Your task to perform on an android device: Search for usb-c to usb-a on walmart, select the first entry, add it to the cart, then select checkout. Image 0: 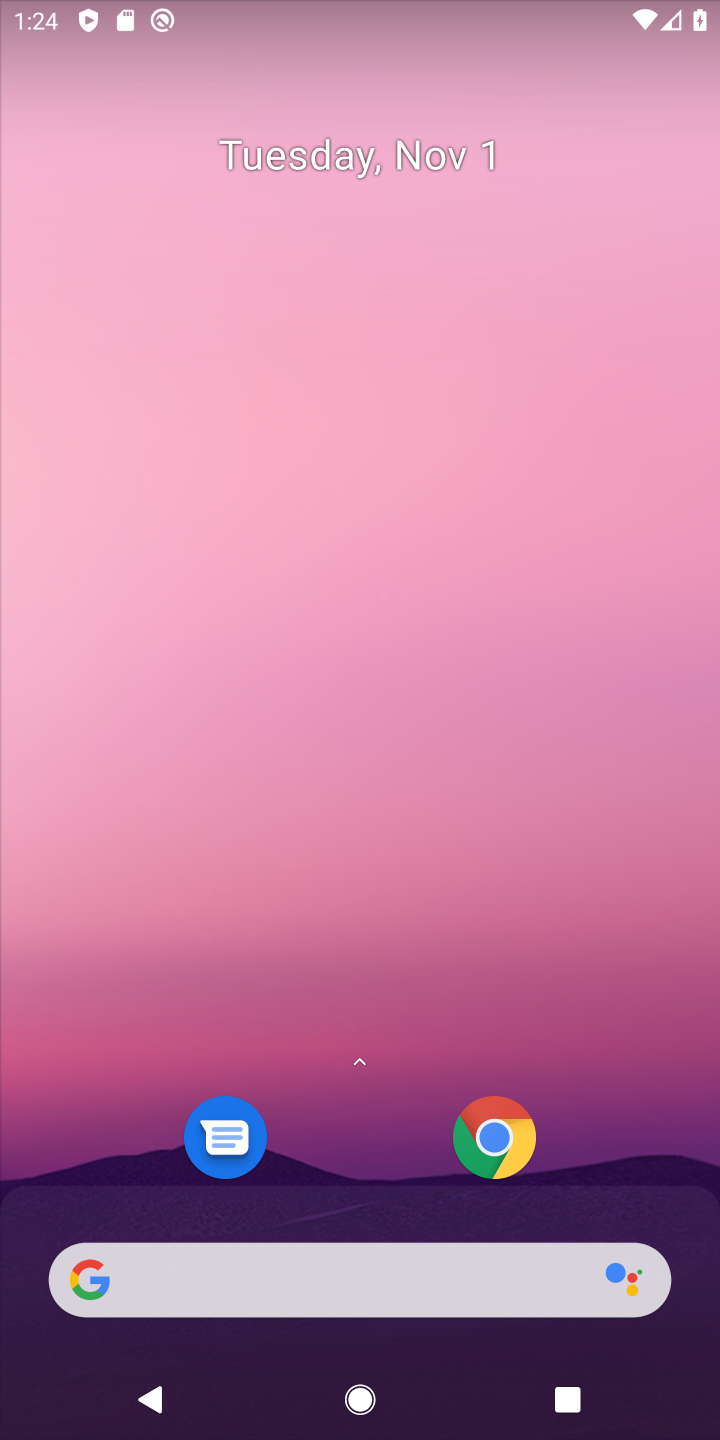
Step 0: click (467, 1323)
Your task to perform on an android device: Search for usb-c to usb-a on walmart, select the first entry, add it to the cart, then select checkout. Image 1: 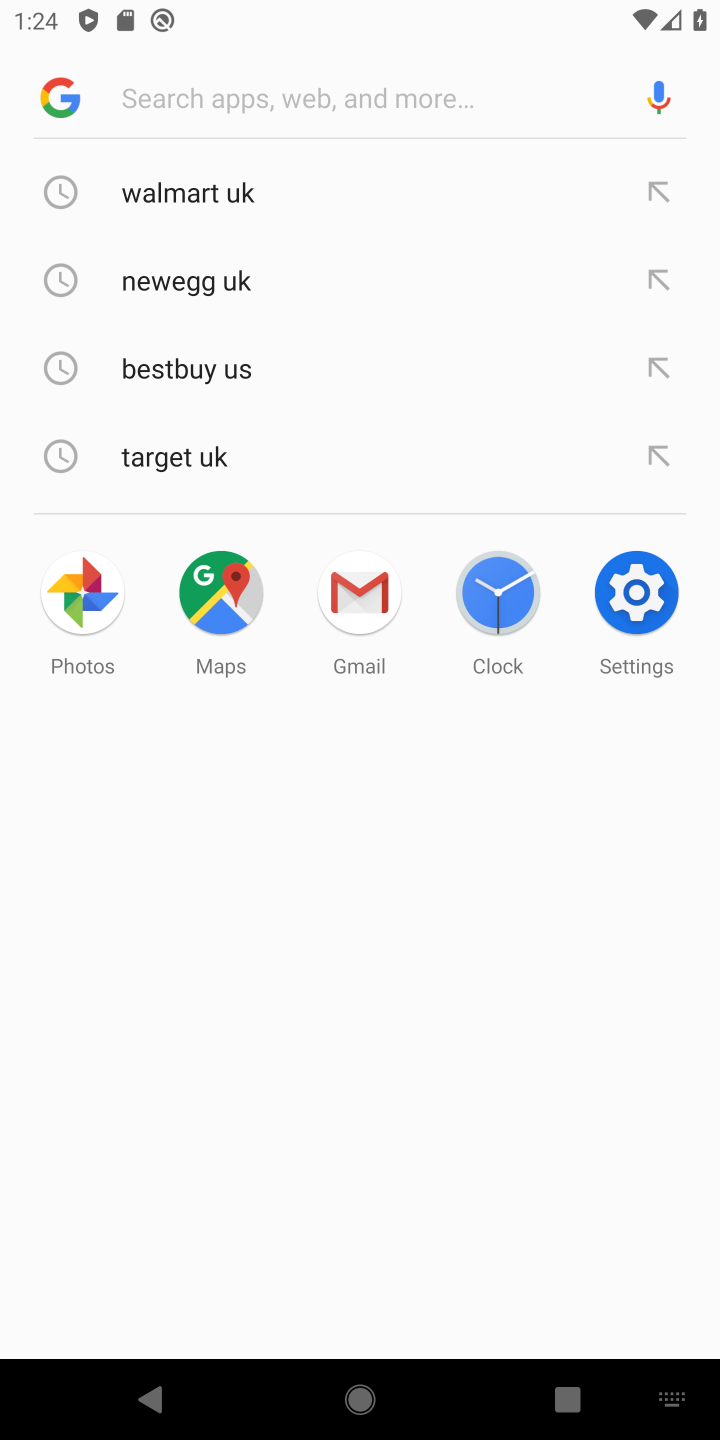
Step 1: type "walmart"
Your task to perform on an android device: Search for usb-c to usb-a on walmart, select the first entry, add it to the cart, then select checkout. Image 2: 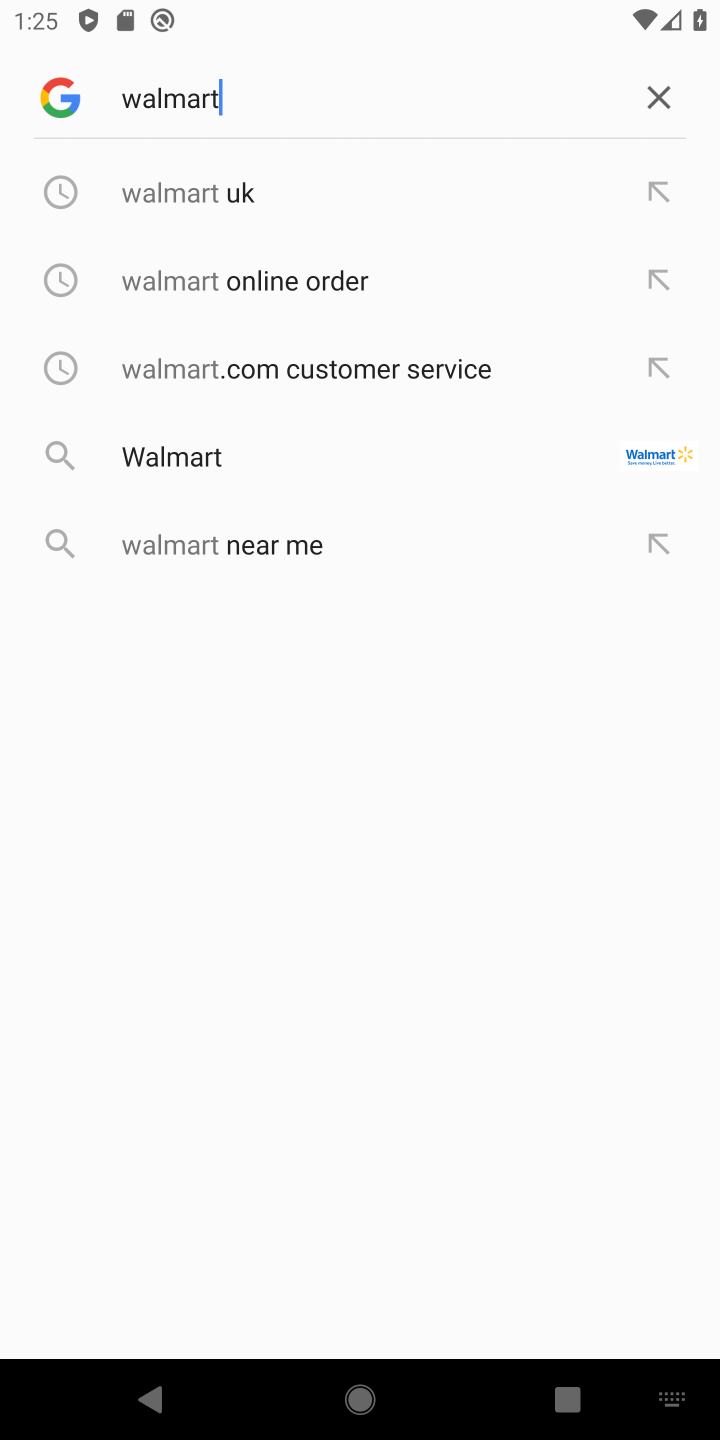
Step 2: click (321, 169)
Your task to perform on an android device: Search for usb-c to usb-a on walmart, select the first entry, add it to the cart, then select checkout. Image 3: 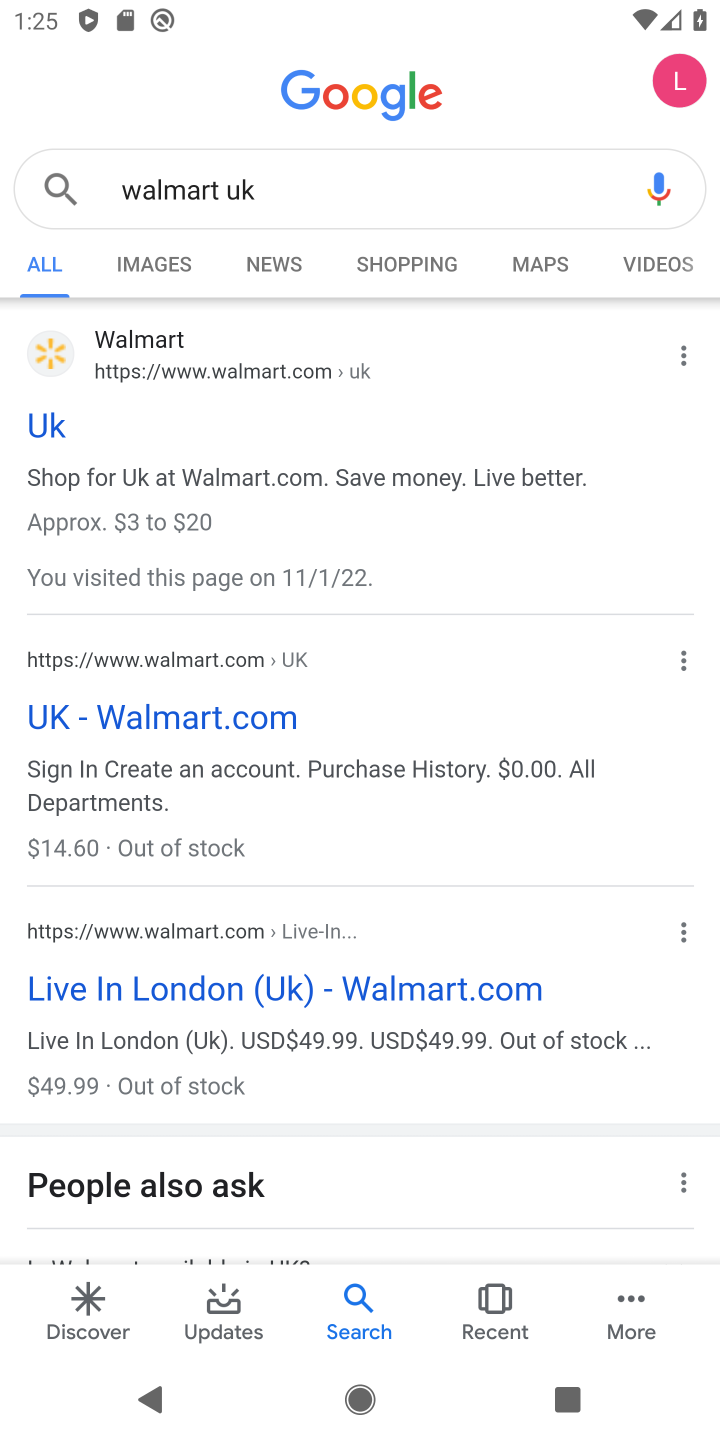
Step 3: click (23, 435)
Your task to perform on an android device: Search for usb-c to usb-a on walmart, select the first entry, add it to the cart, then select checkout. Image 4: 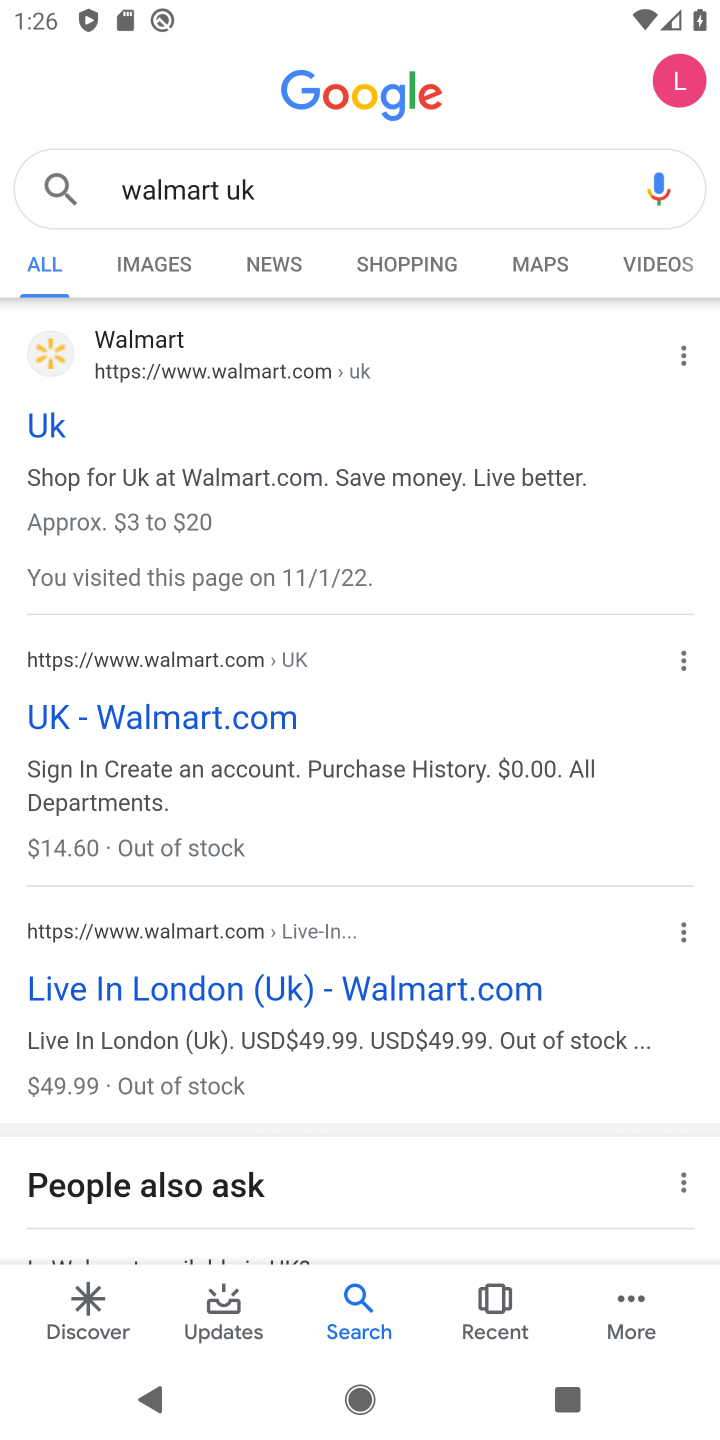
Step 4: click (50, 433)
Your task to perform on an android device: Search for usb-c to usb-a on walmart, select the first entry, add it to the cart, then select checkout. Image 5: 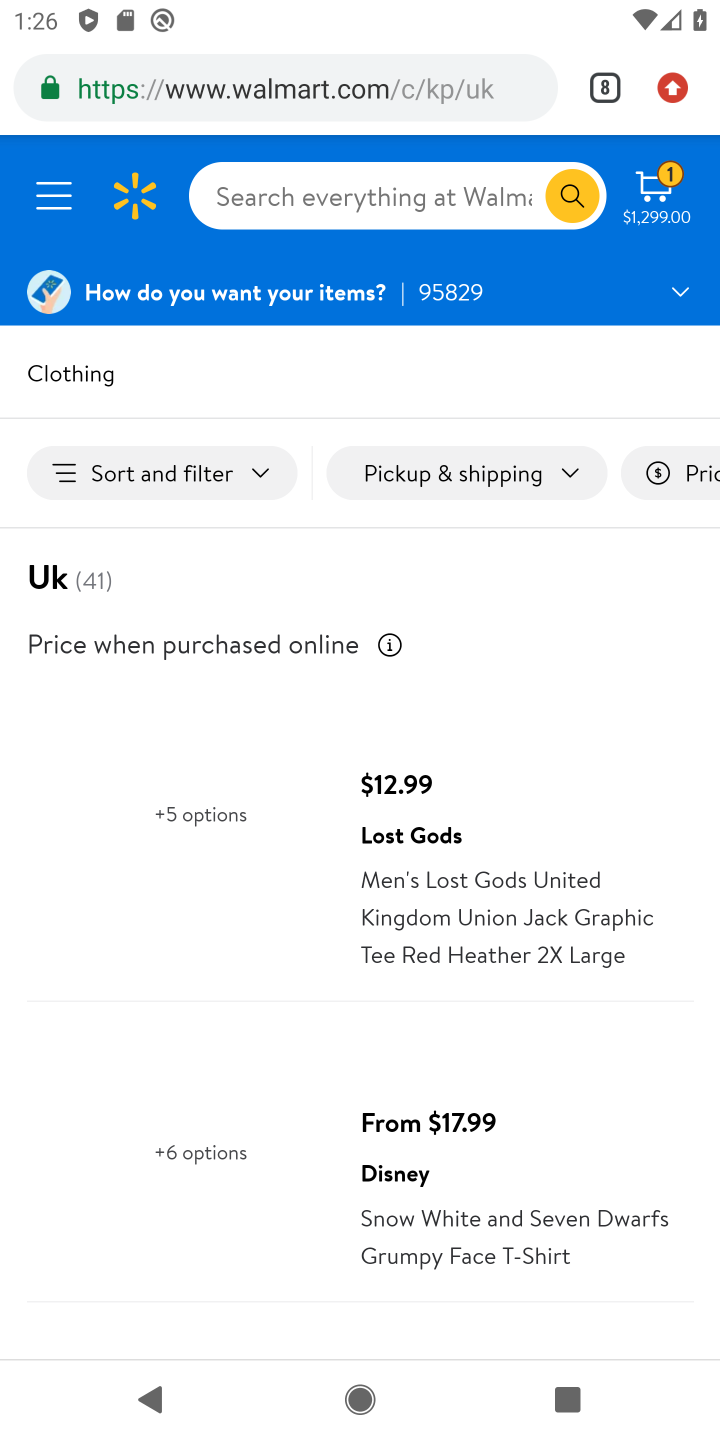
Step 5: click (298, 217)
Your task to perform on an android device: Search for usb-c to usb-a on walmart, select the first entry, add it to the cart, then select checkout. Image 6: 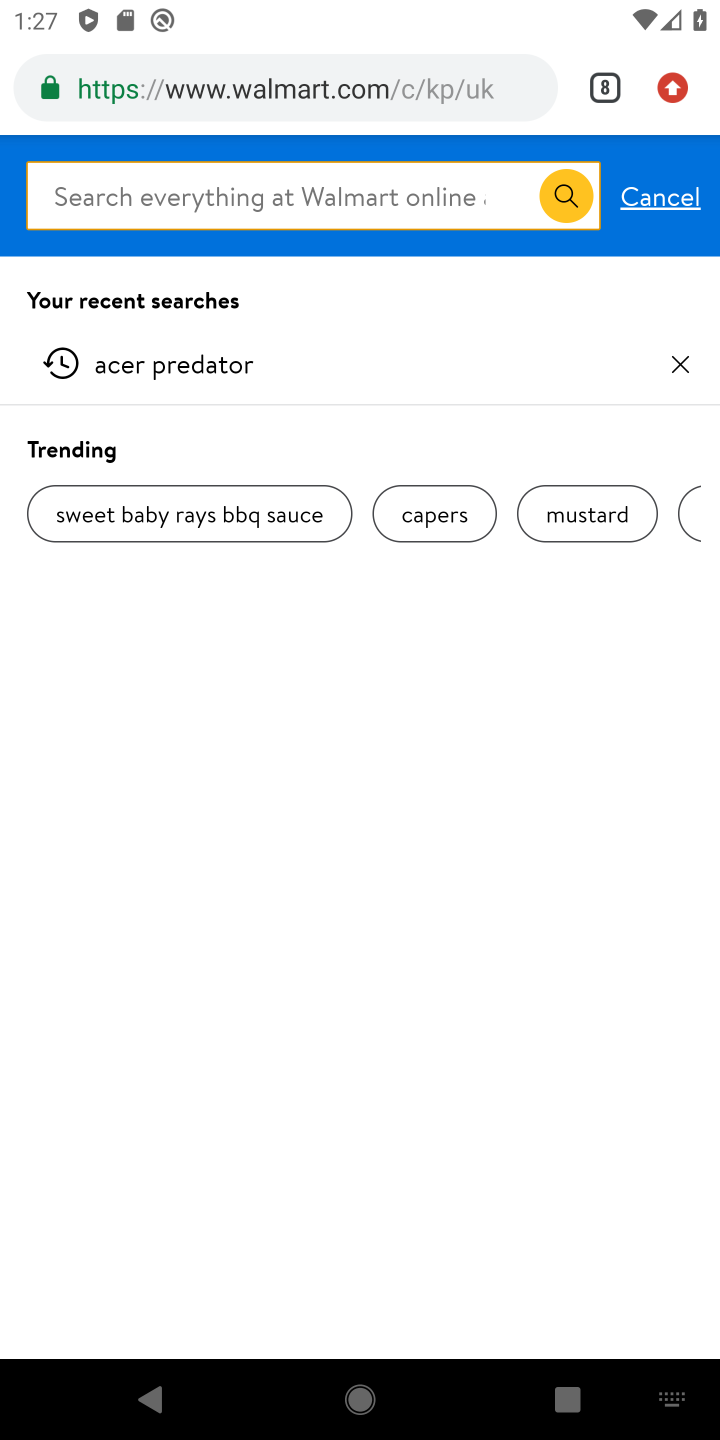
Step 6: task complete